Your task to perform on an android device: change your default location settings in chrome Image 0: 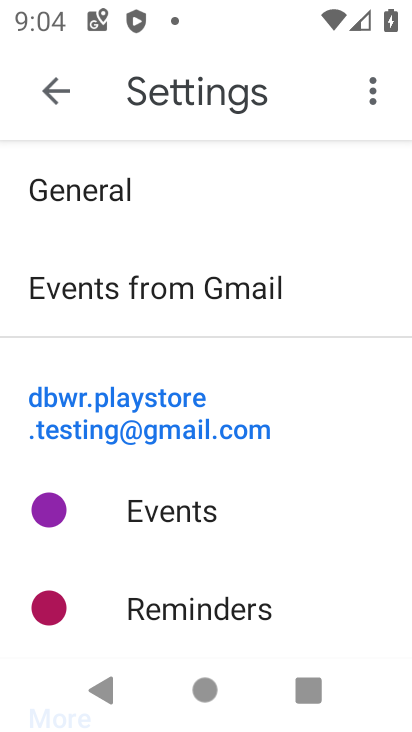
Step 0: press home button
Your task to perform on an android device: change your default location settings in chrome Image 1: 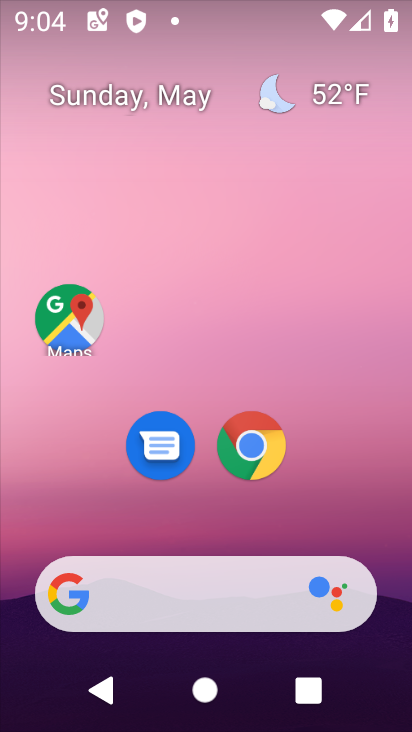
Step 1: click (253, 451)
Your task to perform on an android device: change your default location settings in chrome Image 2: 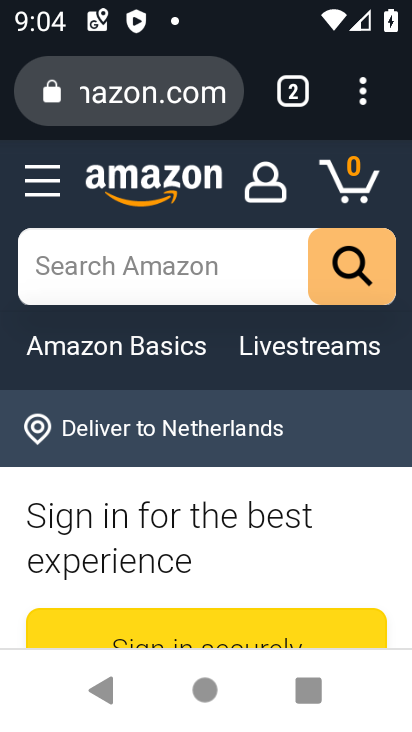
Step 2: click (364, 95)
Your task to perform on an android device: change your default location settings in chrome Image 3: 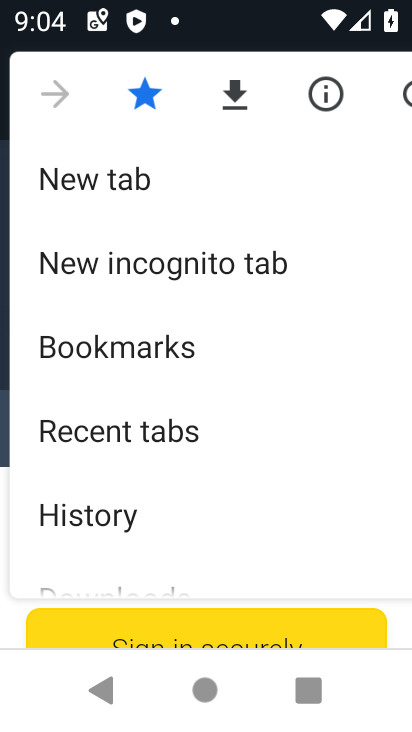
Step 3: drag from (183, 462) to (117, 50)
Your task to perform on an android device: change your default location settings in chrome Image 4: 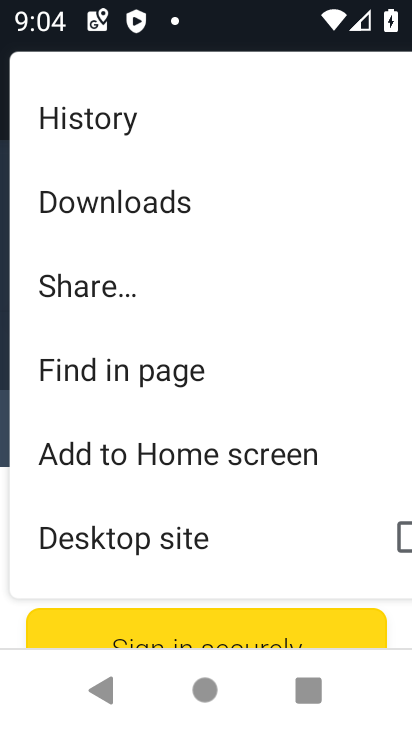
Step 4: drag from (109, 479) to (81, 139)
Your task to perform on an android device: change your default location settings in chrome Image 5: 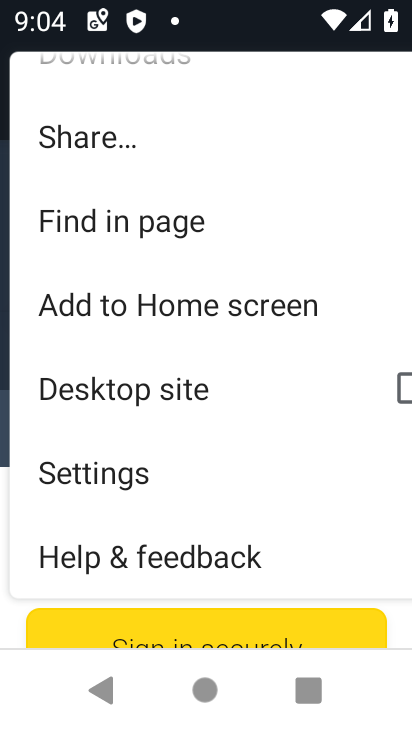
Step 5: click (92, 470)
Your task to perform on an android device: change your default location settings in chrome Image 6: 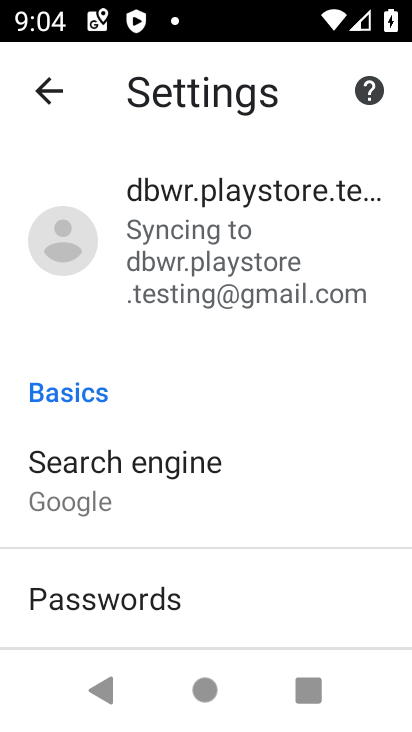
Step 6: drag from (208, 481) to (121, 94)
Your task to perform on an android device: change your default location settings in chrome Image 7: 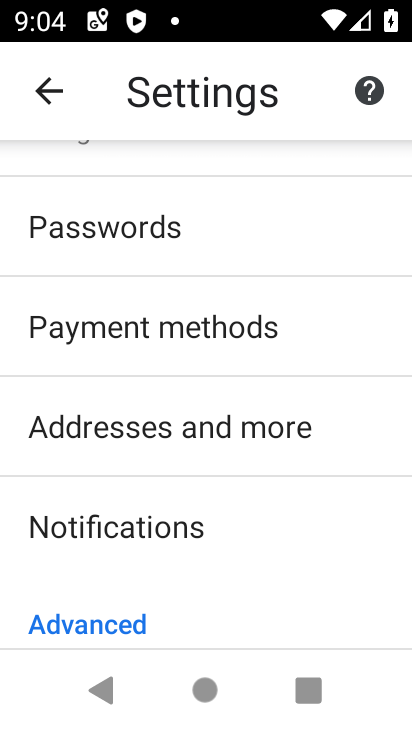
Step 7: drag from (155, 486) to (76, 169)
Your task to perform on an android device: change your default location settings in chrome Image 8: 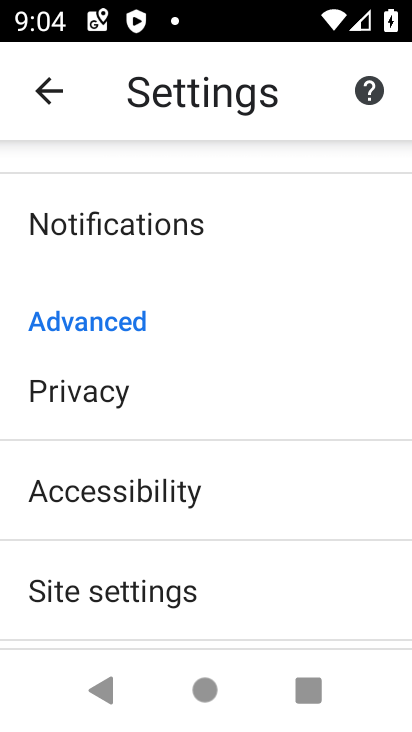
Step 8: click (127, 591)
Your task to perform on an android device: change your default location settings in chrome Image 9: 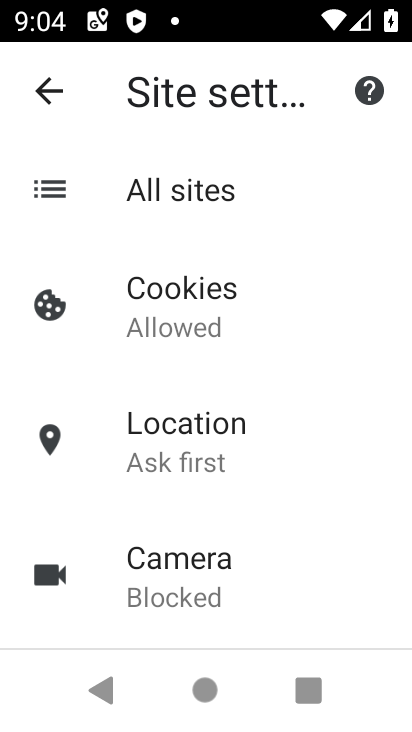
Step 9: click (179, 419)
Your task to perform on an android device: change your default location settings in chrome Image 10: 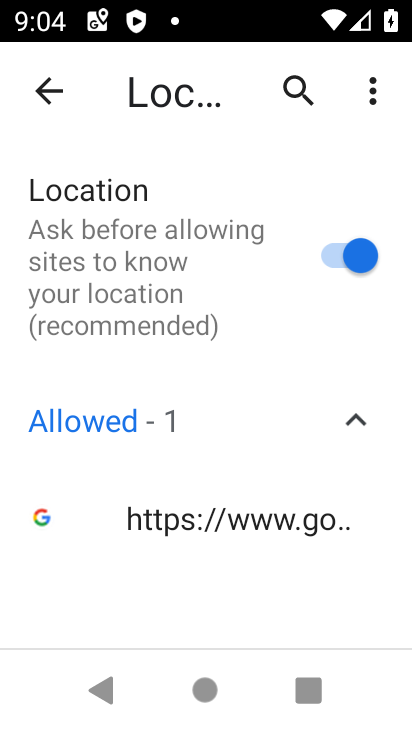
Step 10: click (343, 254)
Your task to perform on an android device: change your default location settings in chrome Image 11: 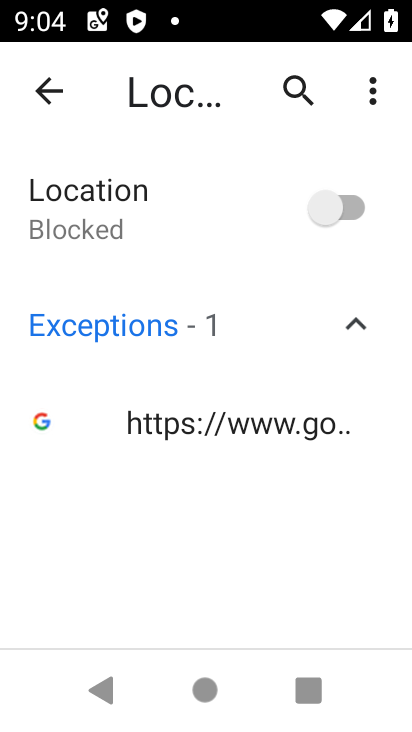
Step 11: task complete